Your task to perform on an android device: check data usage Image 0: 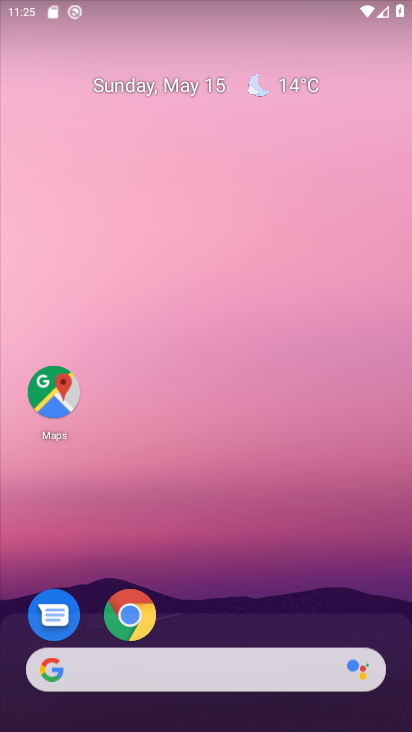
Step 0: drag from (311, 584) to (283, 10)
Your task to perform on an android device: check data usage Image 1: 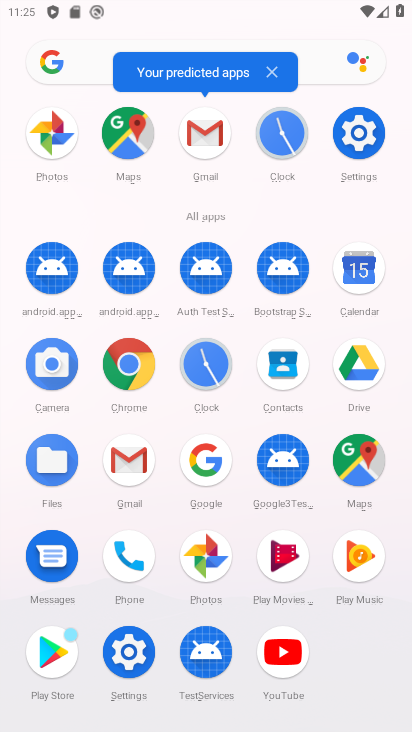
Step 1: click (130, 365)
Your task to perform on an android device: check data usage Image 2: 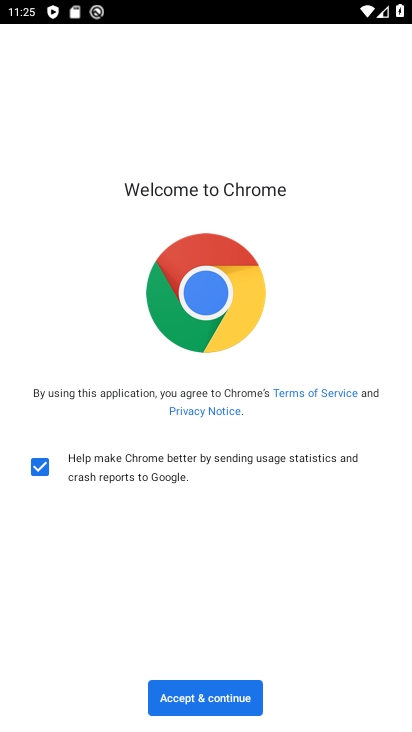
Step 2: click (222, 697)
Your task to perform on an android device: check data usage Image 3: 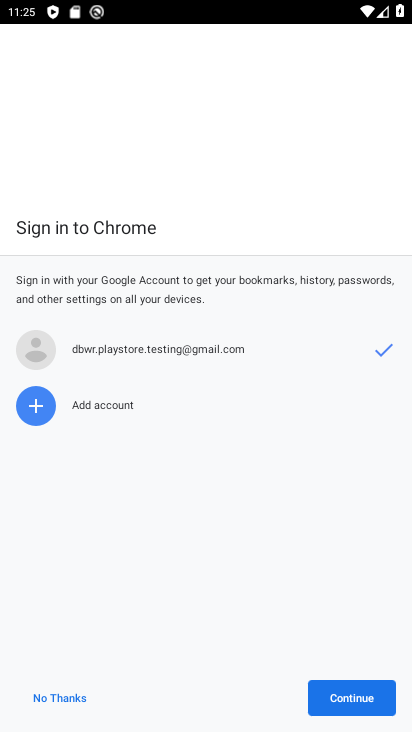
Step 3: click (367, 704)
Your task to perform on an android device: check data usage Image 4: 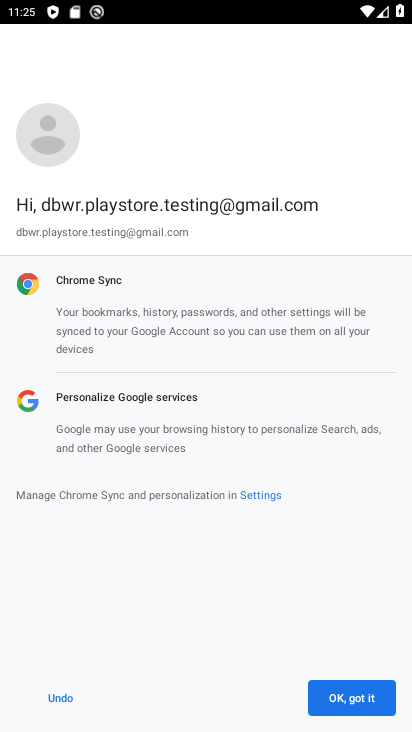
Step 4: click (359, 701)
Your task to perform on an android device: check data usage Image 5: 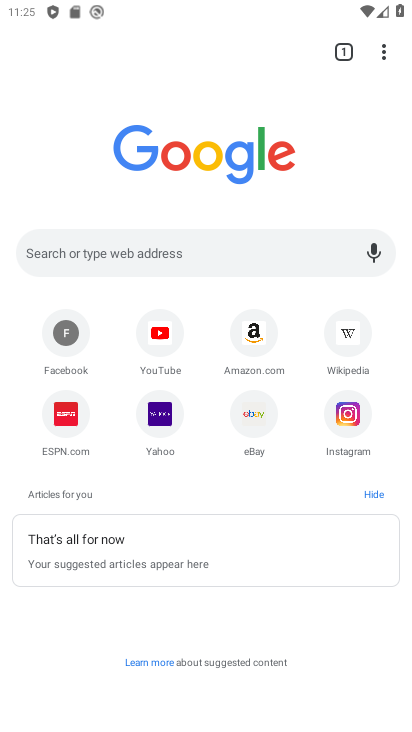
Step 5: click (387, 56)
Your task to perform on an android device: check data usage Image 6: 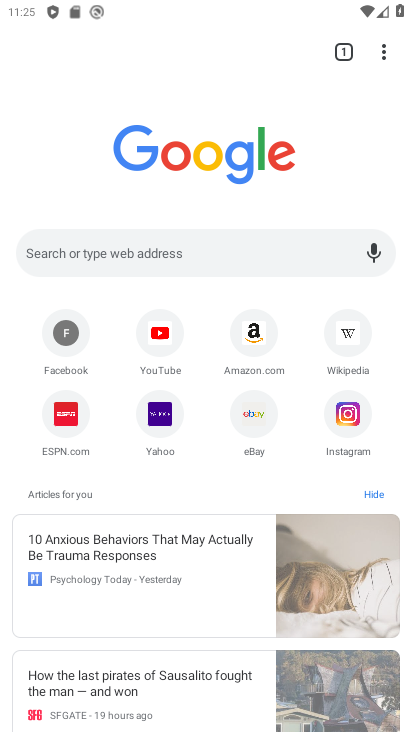
Step 6: press home button
Your task to perform on an android device: check data usage Image 7: 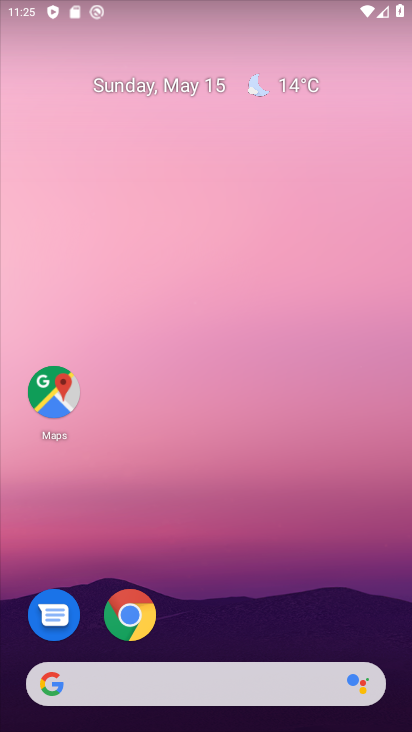
Step 7: drag from (356, 438) to (351, 34)
Your task to perform on an android device: check data usage Image 8: 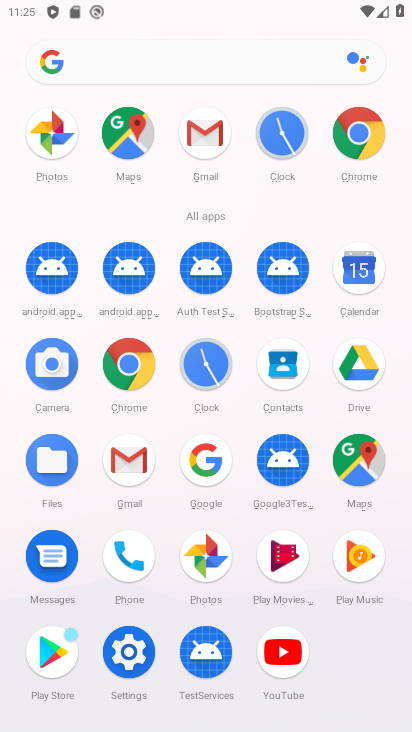
Step 8: click (130, 661)
Your task to perform on an android device: check data usage Image 9: 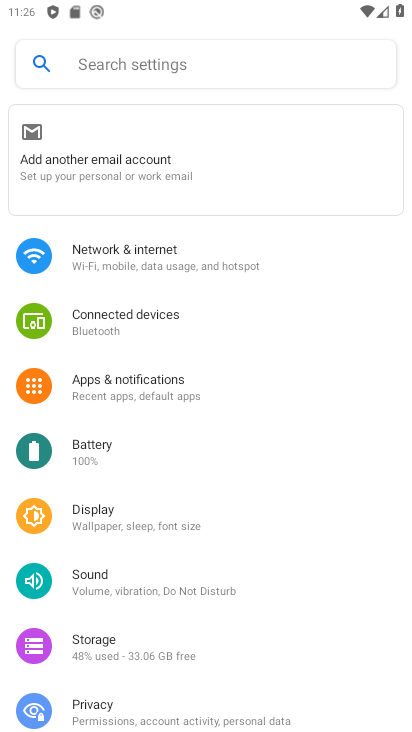
Step 9: click (89, 263)
Your task to perform on an android device: check data usage Image 10: 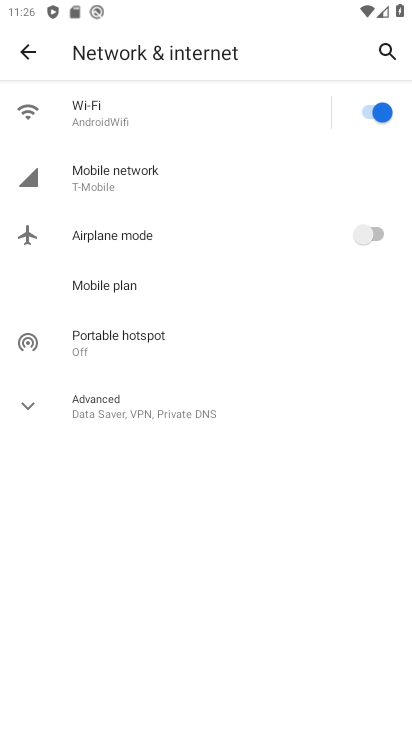
Step 10: click (152, 189)
Your task to perform on an android device: check data usage Image 11: 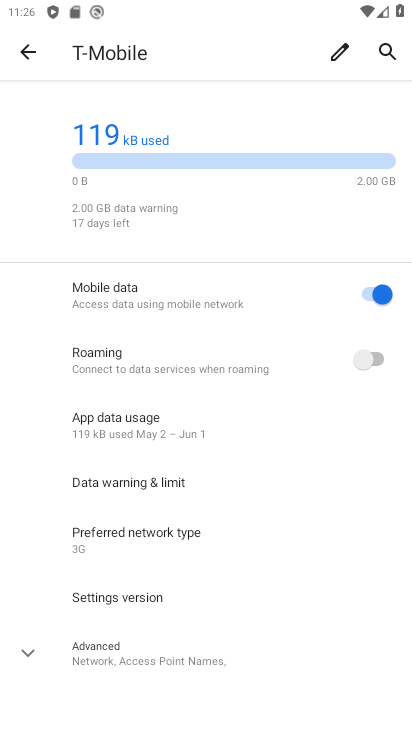
Step 11: task complete